Your task to perform on an android device: allow notifications from all sites in the chrome app Image 0: 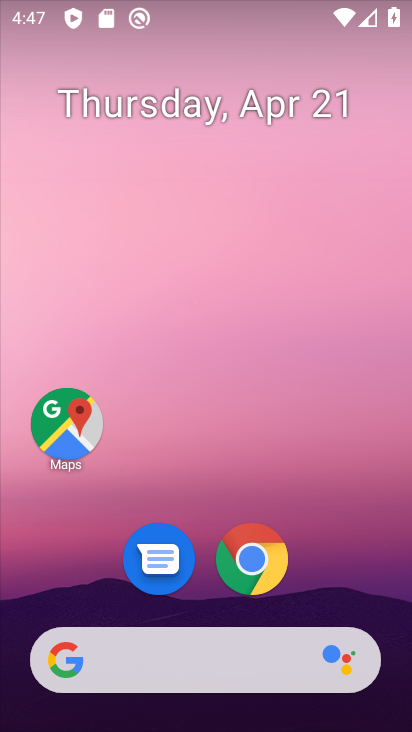
Step 0: drag from (292, 313) to (218, 4)
Your task to perform on an android device: allow notifications from all sites in the chrome app Image 1: 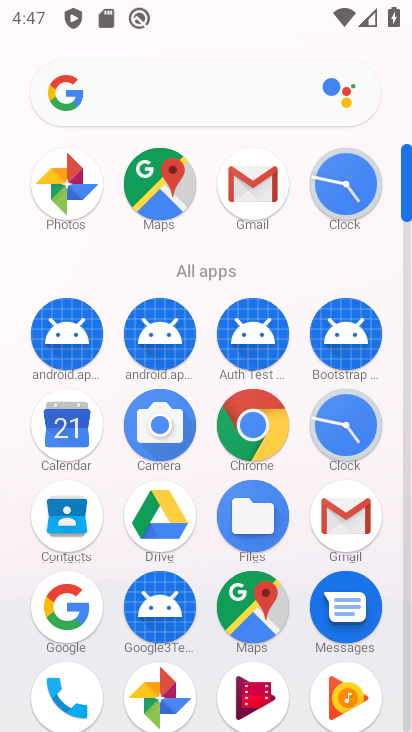
Step 1: click (235, 434)
Your task to perform on an android device: allow notifications from all sites in the chrome app Image 2: 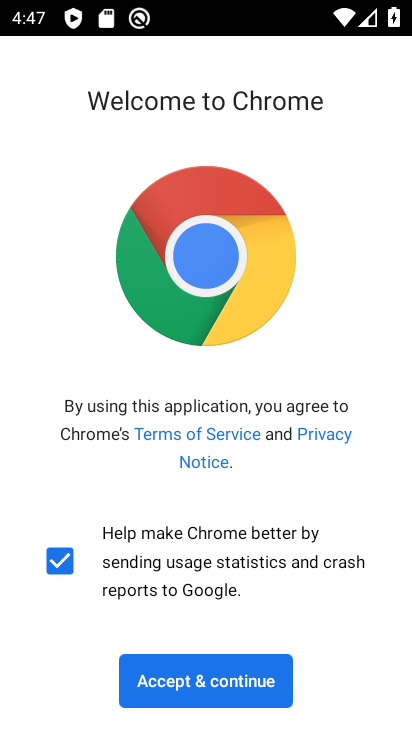
Step 2: click (167, 689)
Your task to perform on an android device: allow notifications from all sites in the chrome app Image 3: 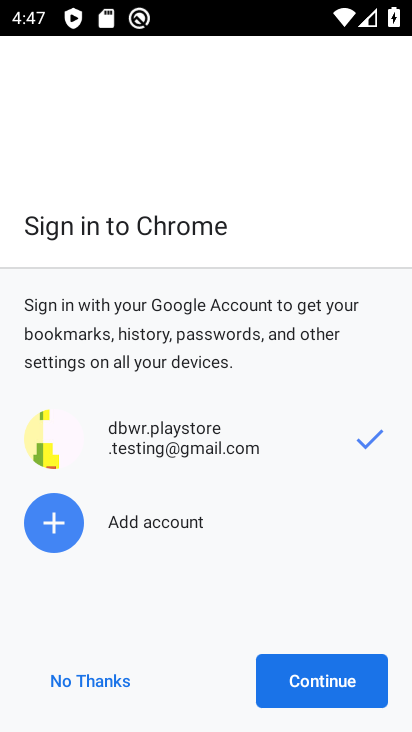
Step 3: click (101, 694)
Your task to perform on an android device: allow notifications from all sites in the chrome app Image 4: 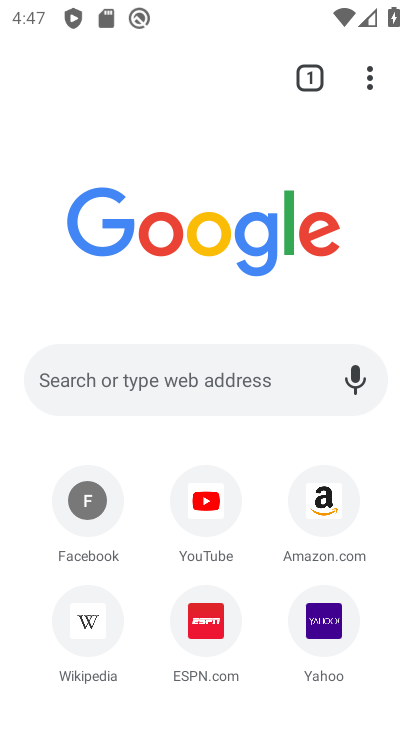
Step 4: drag from (361, 70) to (161, 643)
Your task to perform on an android device: allow notifications from all sites in the chrome app Image 5: 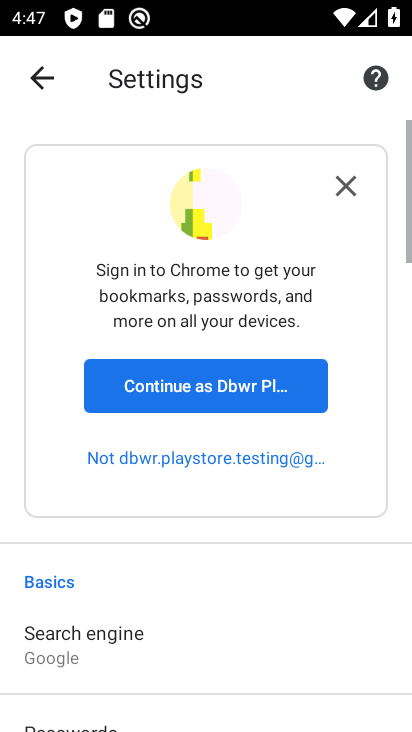
Step 5: drag from (155, 602) to (249, 245)
Your task to perform on an android device: allow notifications from all sites in the chrome app Image 6: 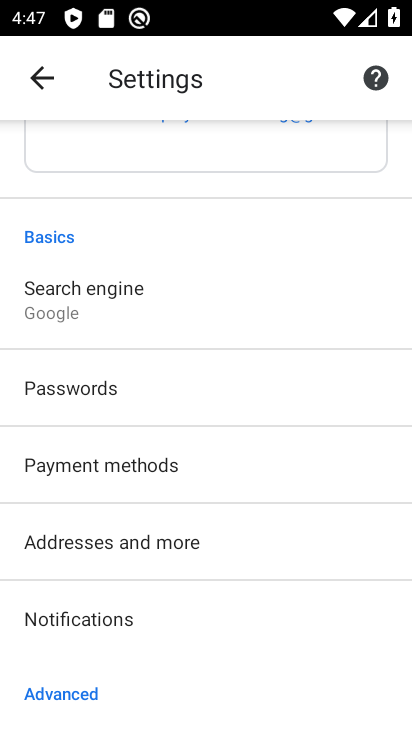
Step 6: drag from (152, 544) to (232, 241)
Your task to perform on an android device: allow notifications from all sites in the chrome app Image 7: 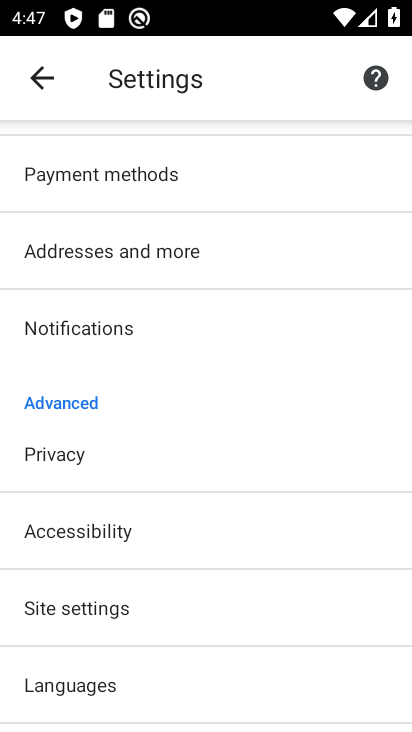
Step 7: click (145, 599)
Your task to perform on an android device: allow notifications from all sites in the chrome app Image 8: 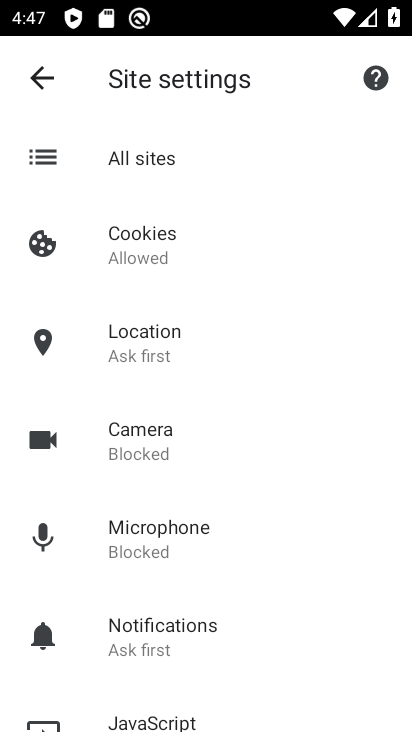
Step 8: click (187, 638)
Your task to perform on an android device: allow notifications from all sites in the chrome app Image 9: 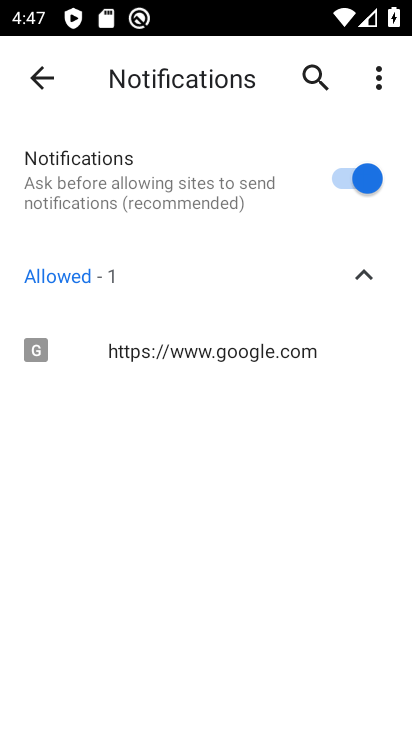
Step 9: task complete